Your task to perform on an android device: Open Chrome and go to settings Image 0: 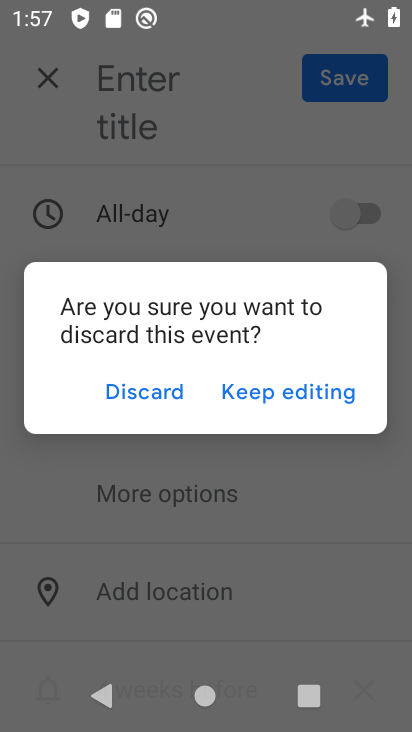
Step 0: click (152, 395)
Your task to perform on an android device: Open Chrome and go to settings Image 1: 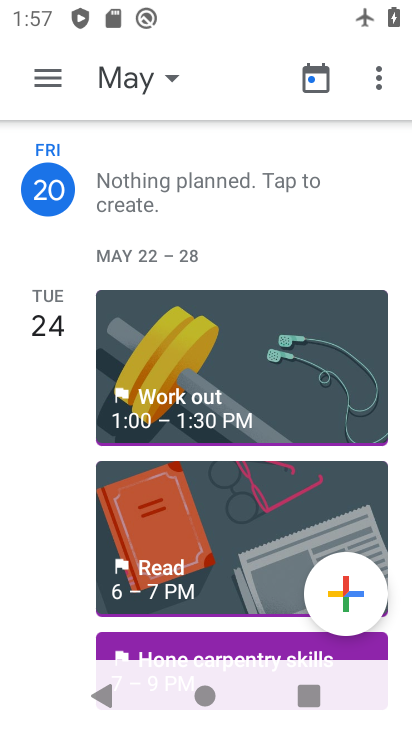
Step 1: press back button
Your task to perform on an android device: Open Chrome and go to settings Image 2: 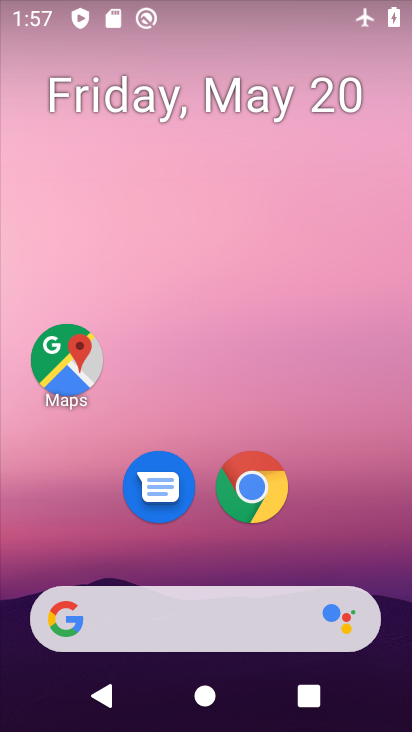
Step 2: drag from (349, 599) to (168, 86)
Your task to perform on an android device: Open Chrome and go to settings Image 3: 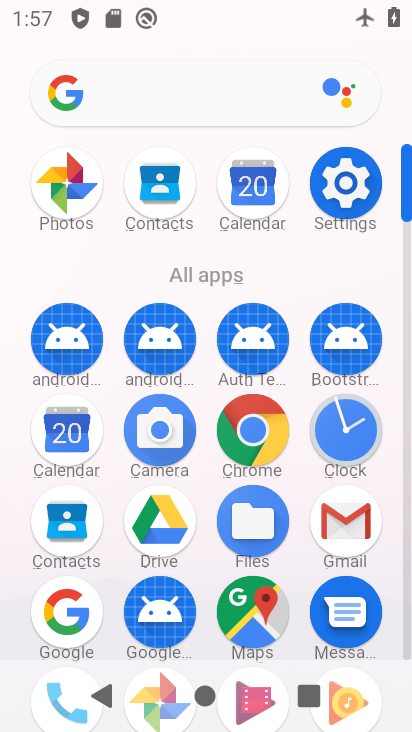
Step 3: click (346, 181)
Your task to perform on an android device: Open Chrome and go to settings Image 4: 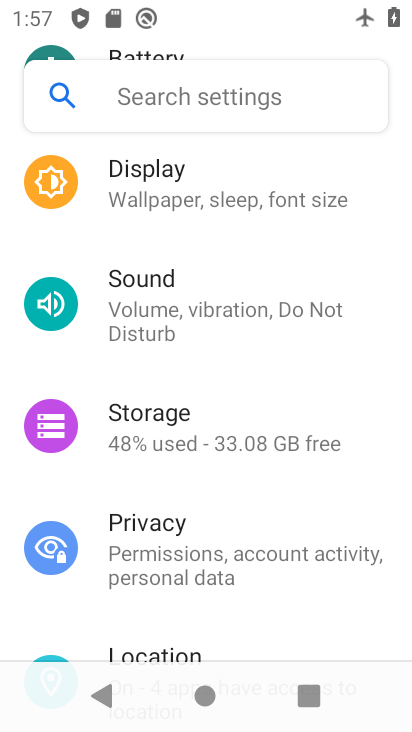
Step 4: press back button
Your task to perform on an android device: Open Chrome and go to settings Image 5: 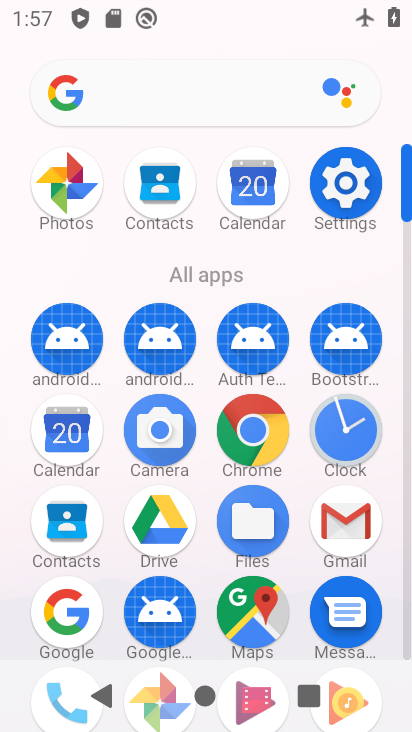
Step 5: click (255, 435)
Your task to perform on an android device: Open Chrome and go to settings Image 6: 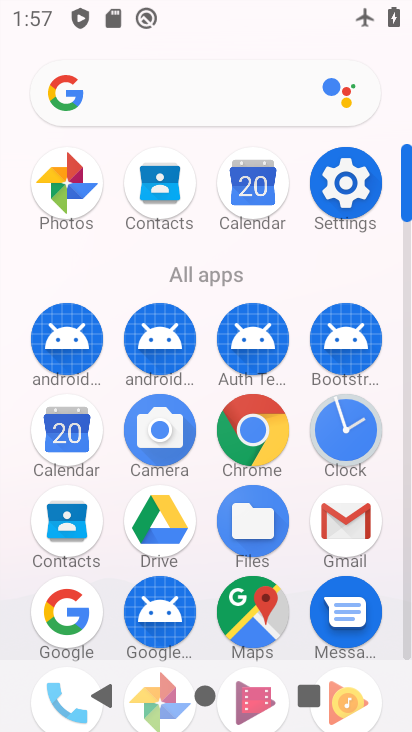
Step 6: click (255, 435)
Your task to perform on an android device: Open Chrome and go to settings Image 7: 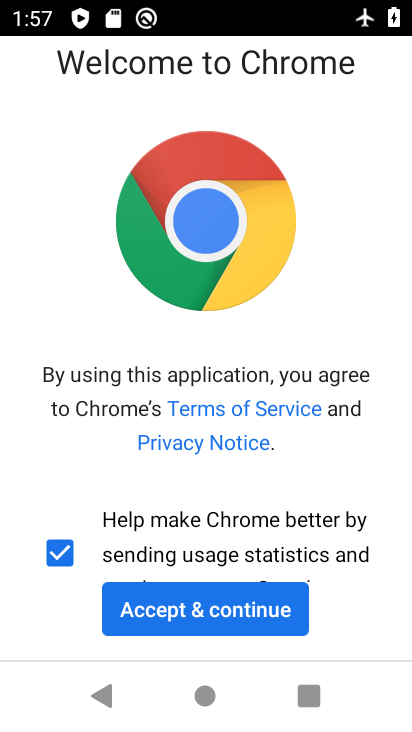
Step 7: click (203, 616)
Your task to perform on an android device: Open Chrome and go to settings Image 8: 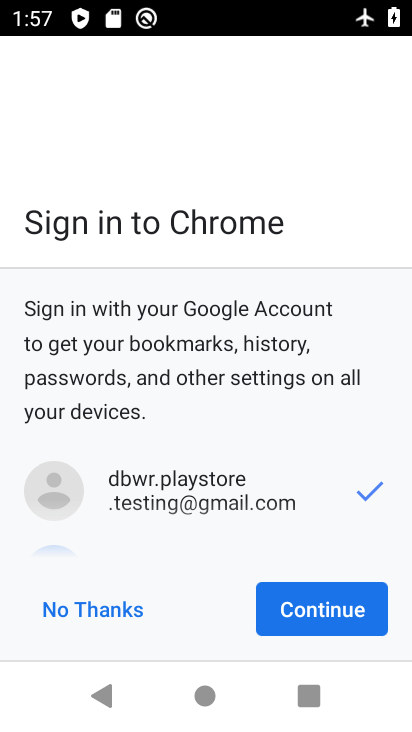
Step 8: click (302, 593)
Your task to perform on an android device: Open Chrome and go to settings Image 9: 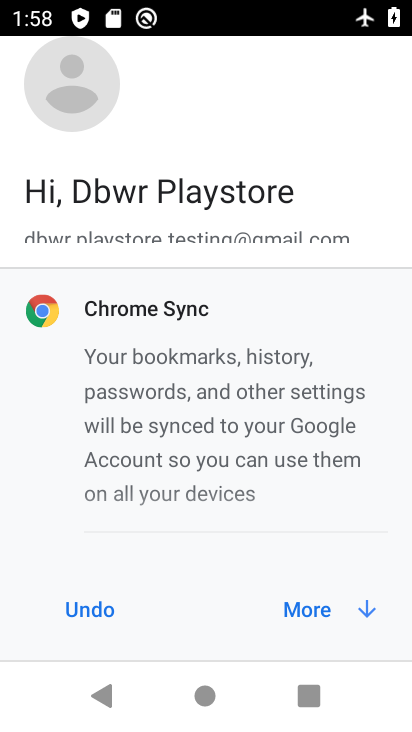
Step 9: click (314, 603)
Your task to perform on an android device: Open Chrome and go to settings Image 10: 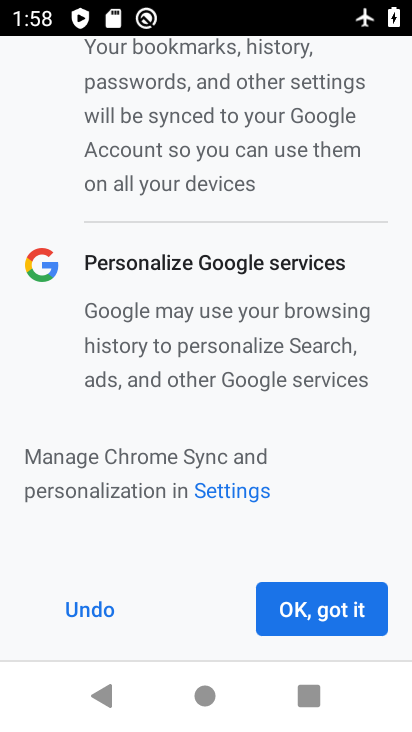
Step 10: click (316, 611)
Your task to perform on an android device: Open Chrome and go to settings Image 11: 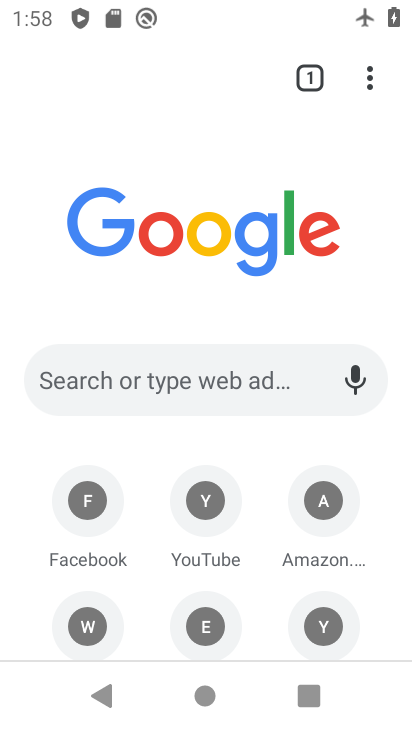
Step 11: drag from (370, 77) to (76, 547)
Your task to perform on an android device: Open Chrome and go to settings Image 12: 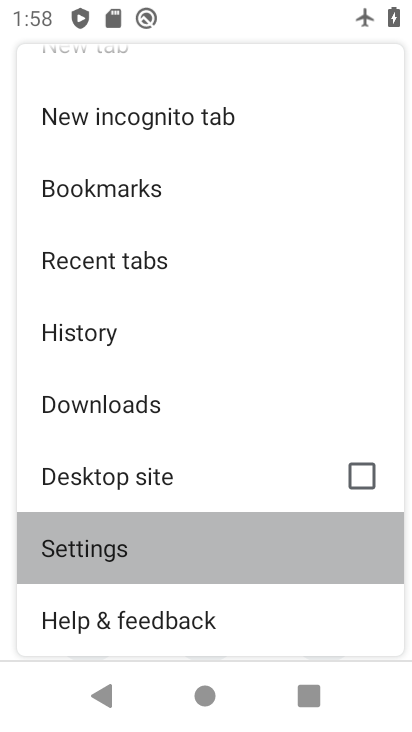
Step 12: click (76, 546)
Your task to perform on an android device: Open Chrome and go to settings Image 13: 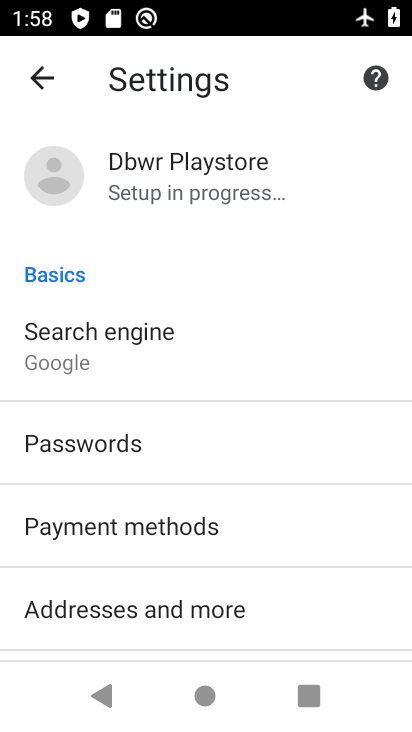
Step 13: task complete